Your task to perform on an android device: Show the shopping cart on walmart.com. Add apple airpods to the cart on walmart.com Image 0: 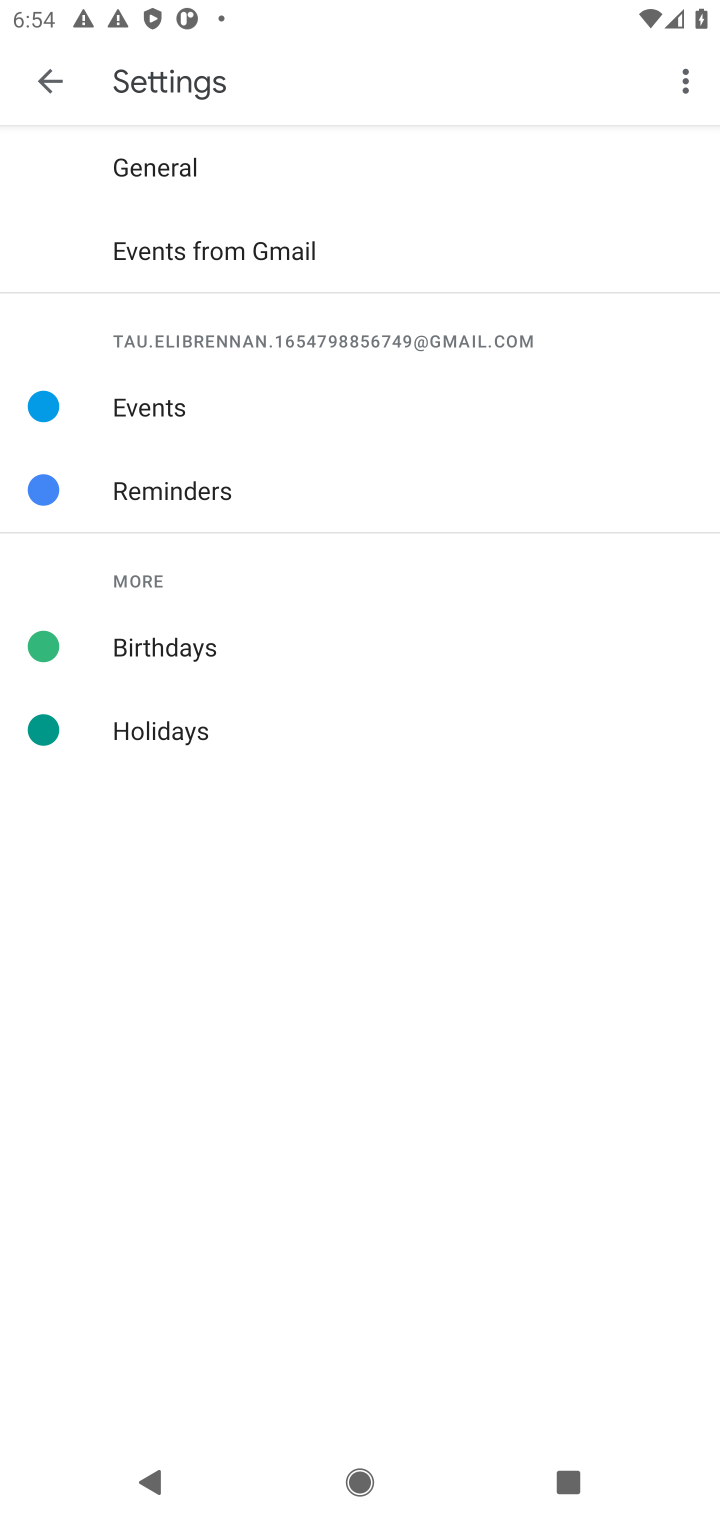
Step 0: press home button
Your task to perform on an android device: Show the shopping cart on walmart.com. Add apple airpods to the cart on walmart.com Image 1: 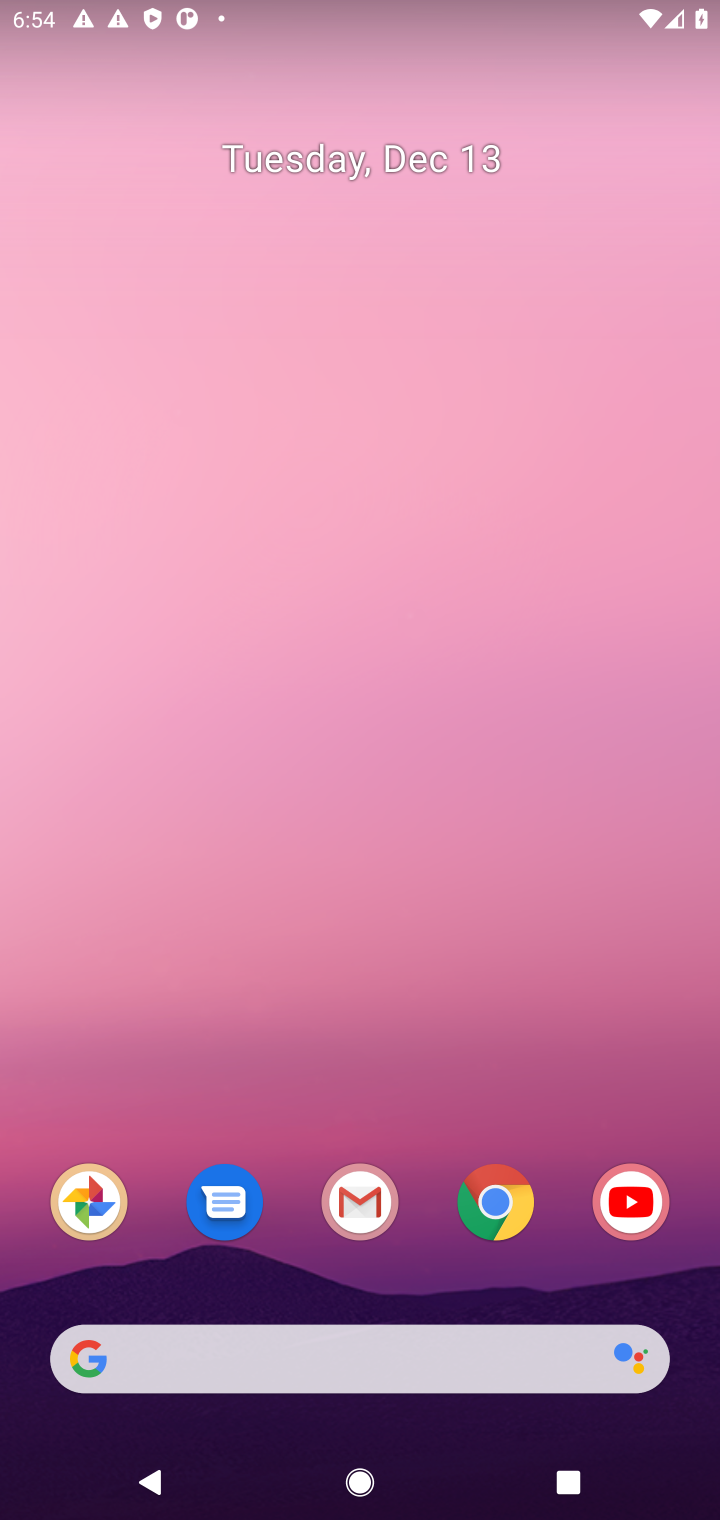
Step 1: click (501, 1213)
Your task to perform on an android device: Show the shopping cart on walmart.com. Add apple airpods to the cart on walmart.com Image 2: 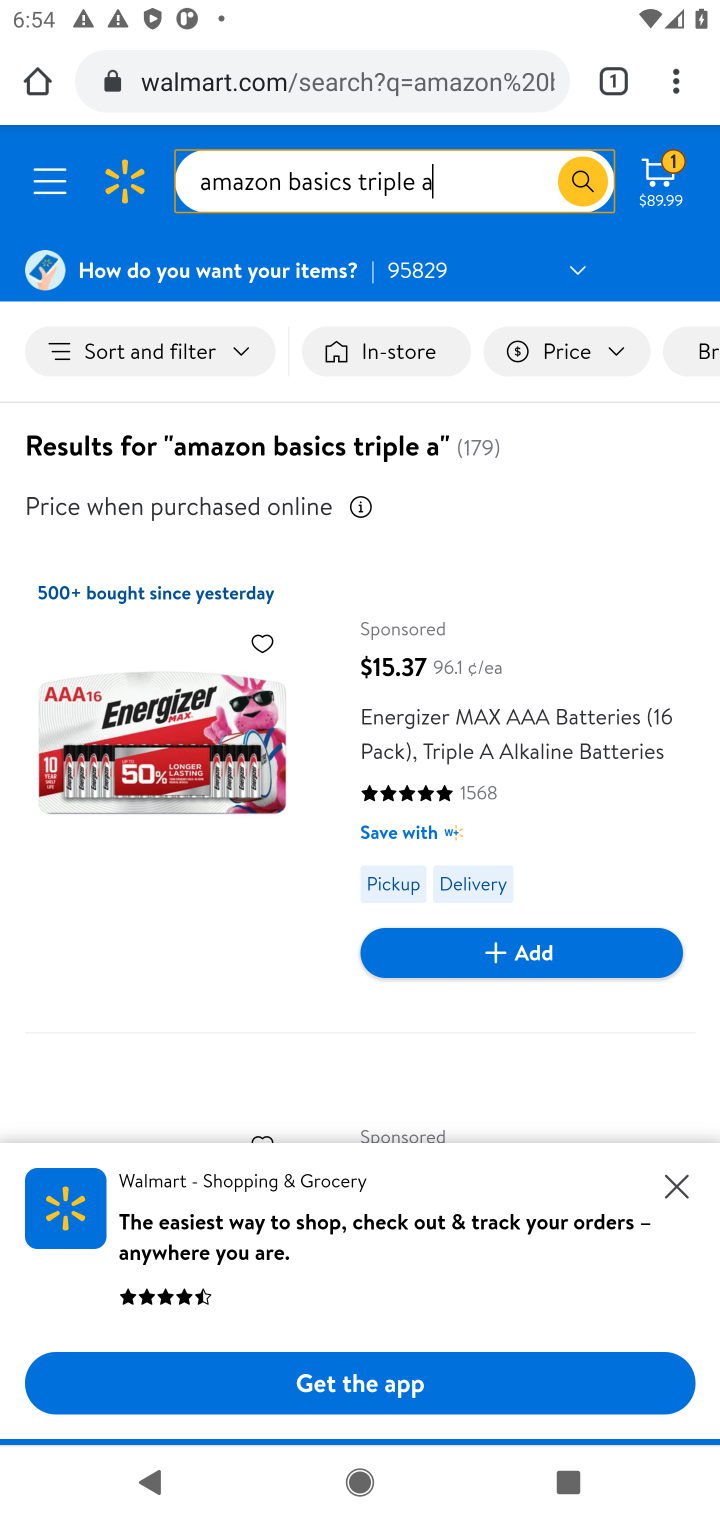
Step 2: click (665, 185)
Your task to perform on an android device: Show the shopping cart on walmart.com. Add apple airpods to the cart on walmart.com Image 3: 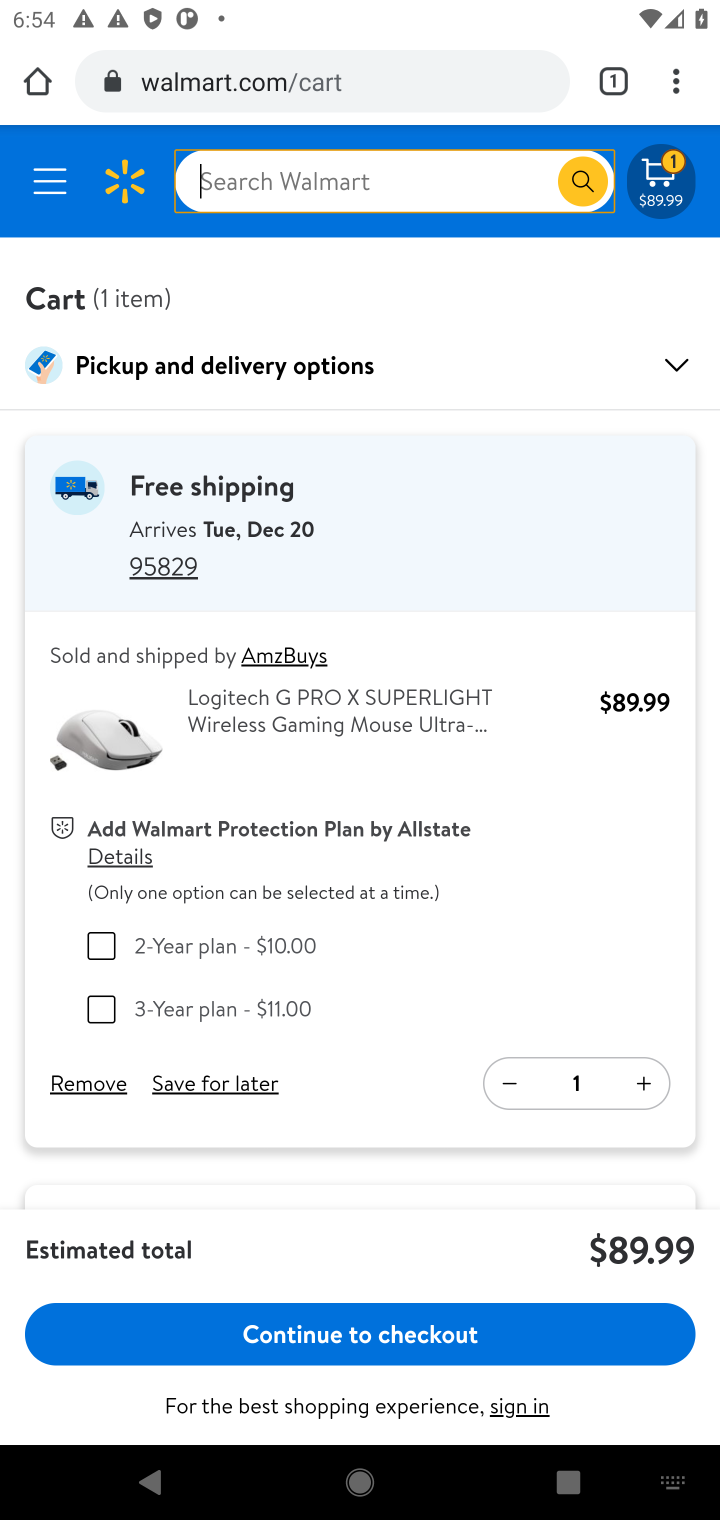
Step 3: click (382, 199)
Your task to perform on an android device: Show the shopping cart on walmart.com. Add apple airpods to the cart on walmart.com Image 4: 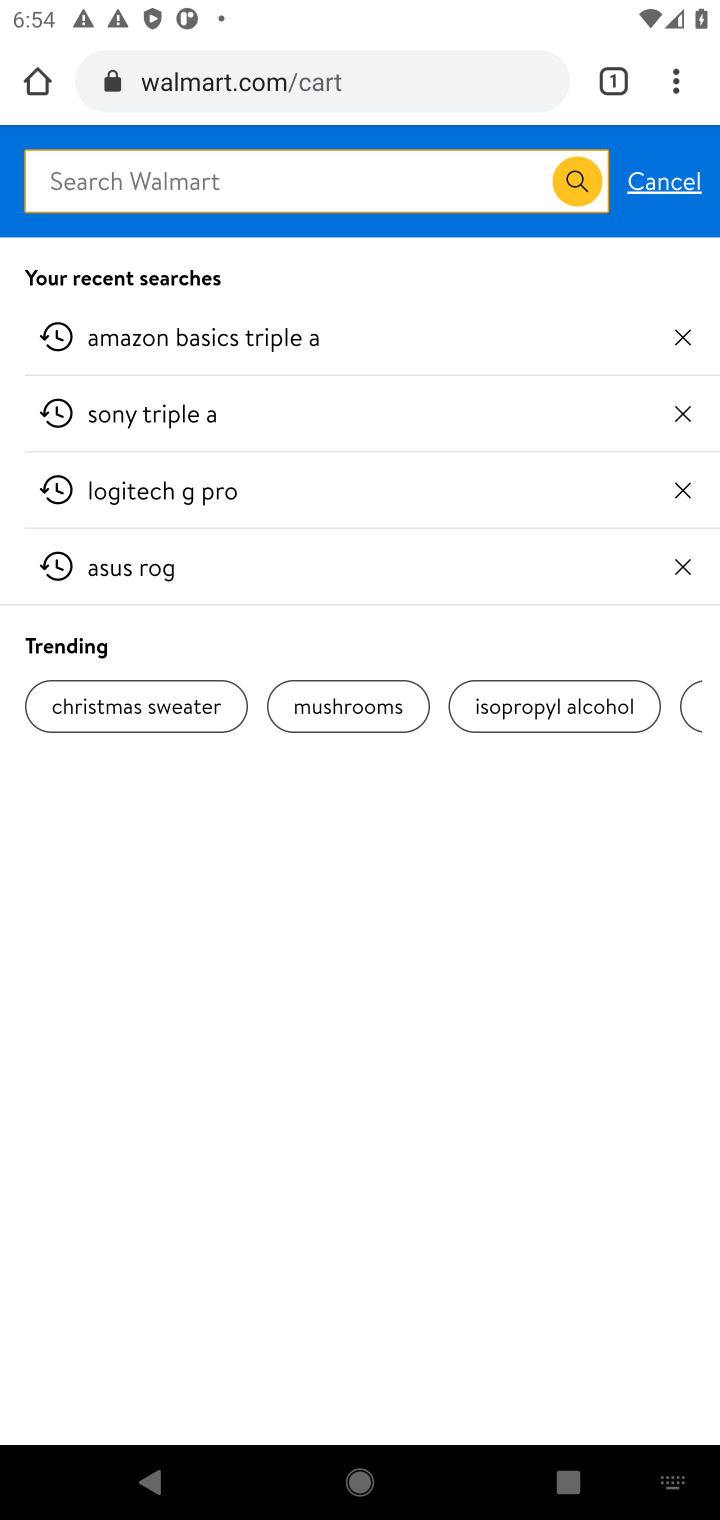
Step 4: type "apple airpods"
Your task to perform on an android device: Show the shopping cart on walmart.com. Add apple airpods to the cart on walmart.com Image 5: 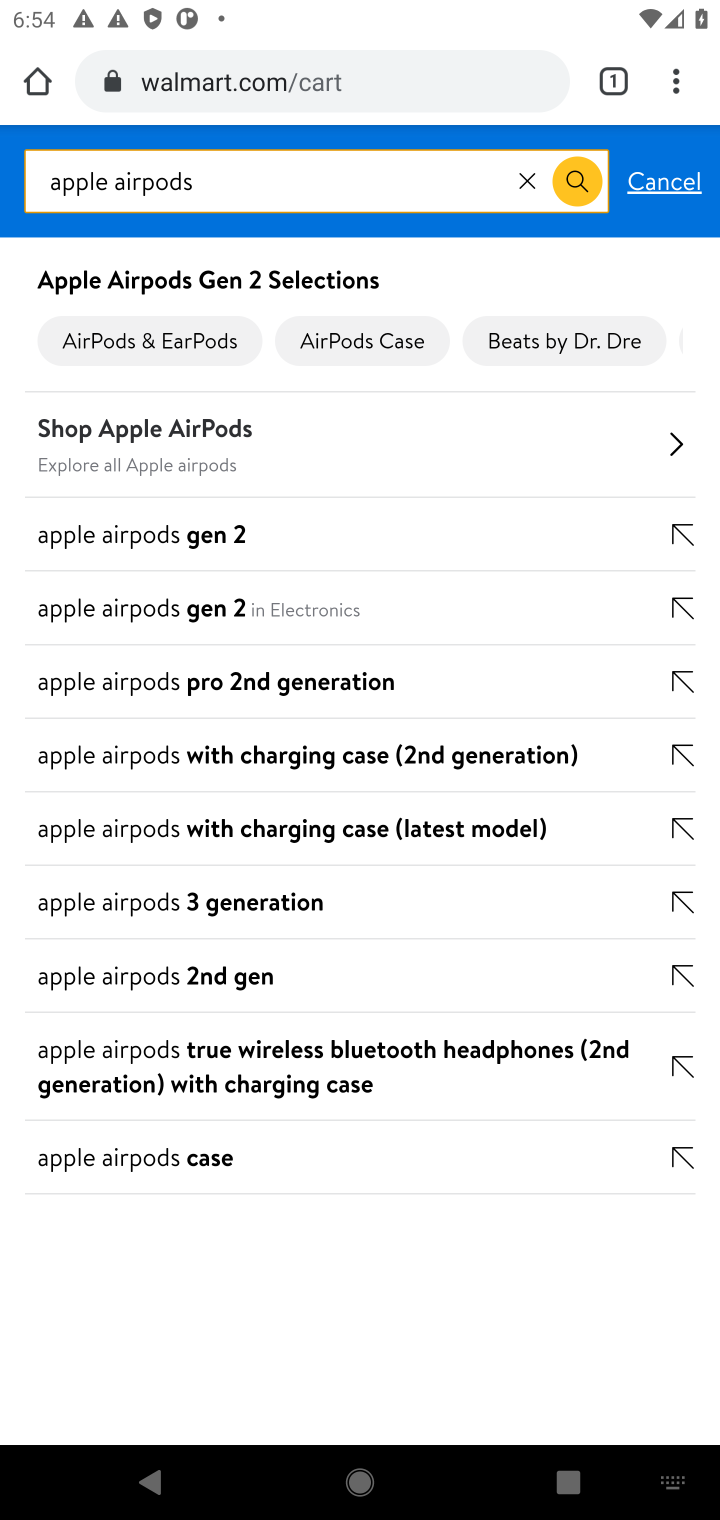
Step 5: click (566, 185)
Your task to perform on an android device: Show the shopping cart on walmart.com. Add apple airpods to the cart on walmart.com Image 6: 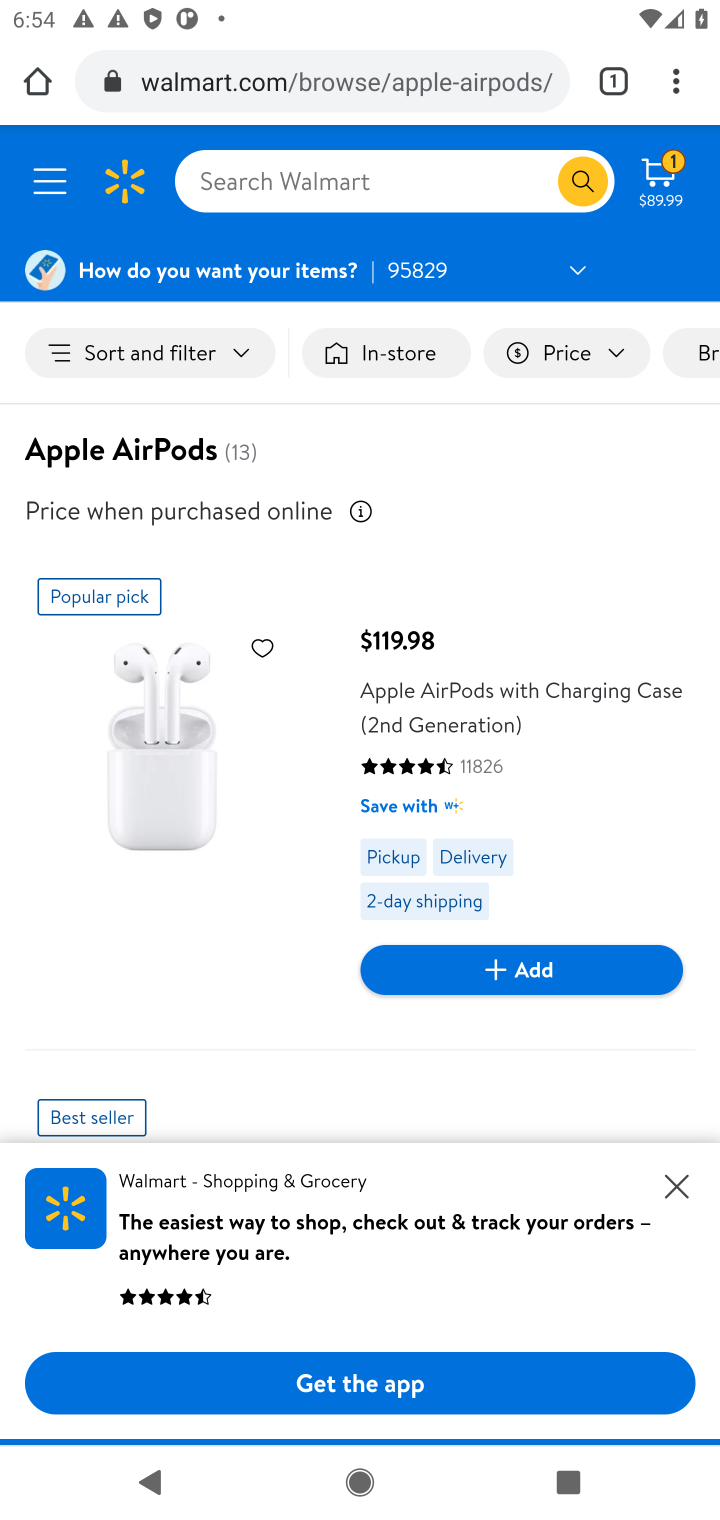
Step 6: click (494, 978)
Your task to perform on an android device: Show the shopping cart on walmart.com. Add apple airpods to the cart on walmart.com Image 7: 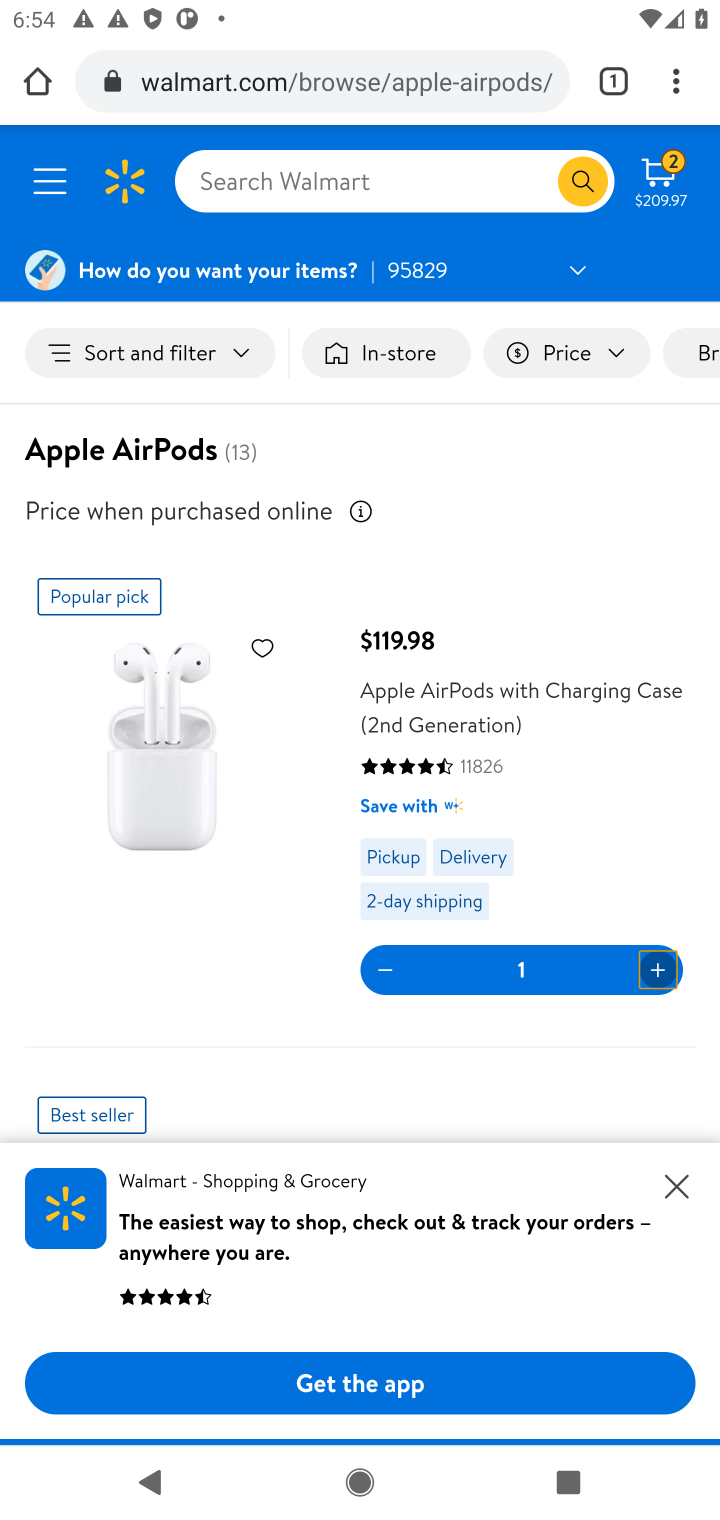
Step 7: task complete